Your task to perform on an android device: turn on javascript in the chrome app Image 0: 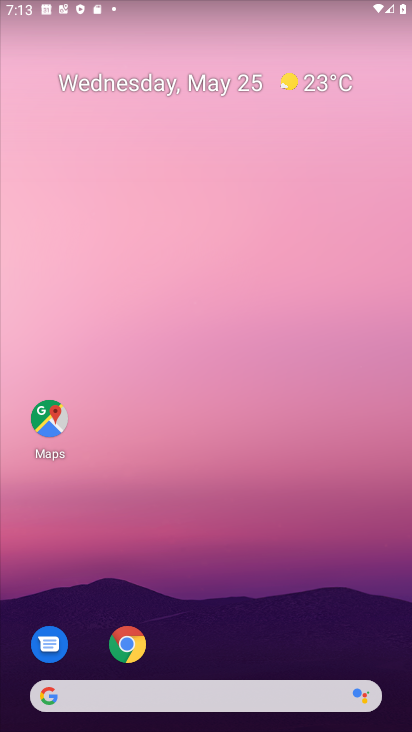
Step 0: press home button
Your task to perform on an android device: turn on javascript in the chrome app Image 1: 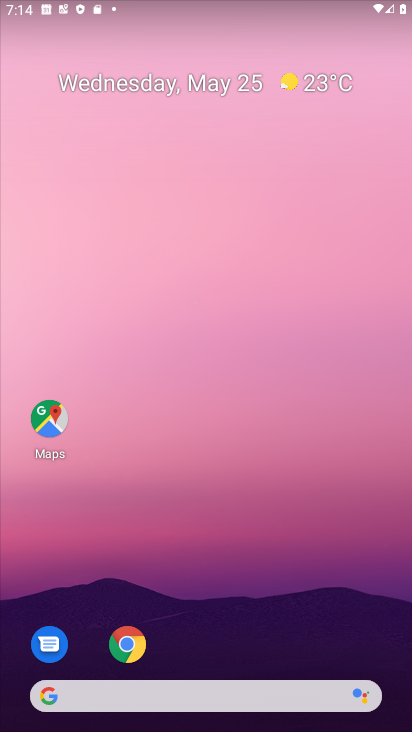
Step 1: drag from (298, 700) to (303, 223)
Your task to perform on an android device: turn on javascript in the chrome app Image 2: 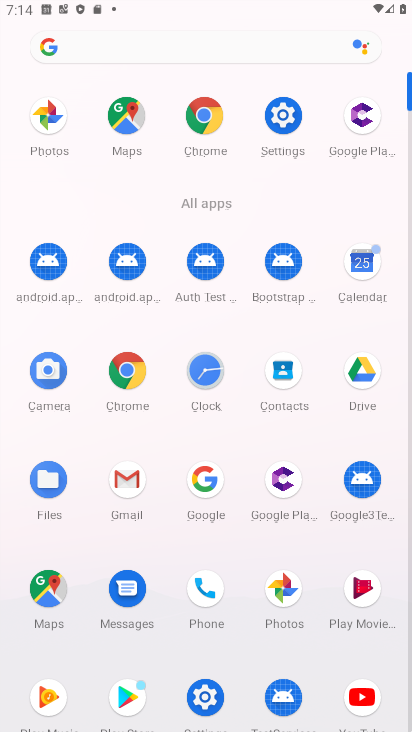
Step 2: click (135, 377)
Your task to perform on an android device: turn on javascript in the chrome app Image 3: 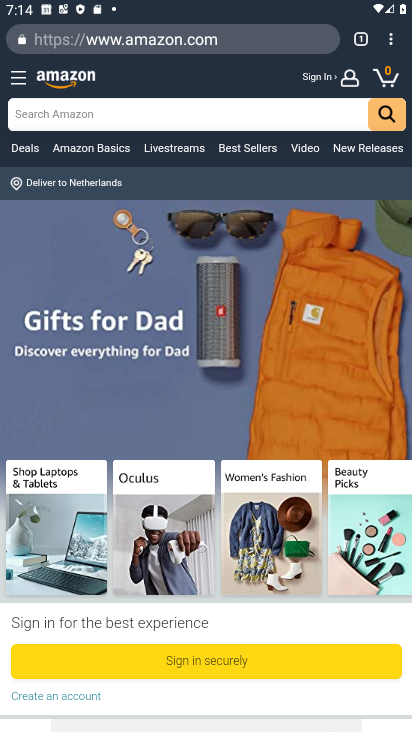
Step 3: click (390, 44)
Your task to perform on an android device: turn on javascript in the chrome app Image 4: 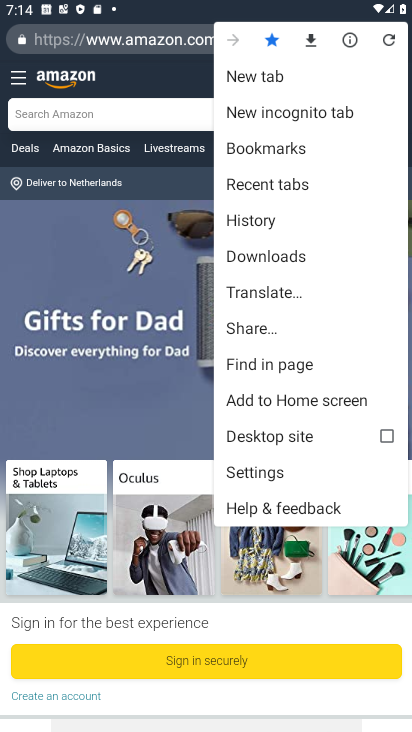
Step 4: click (282, 465)
Your task to perform on an android device: turn on javascript in the chrome app Image 5: 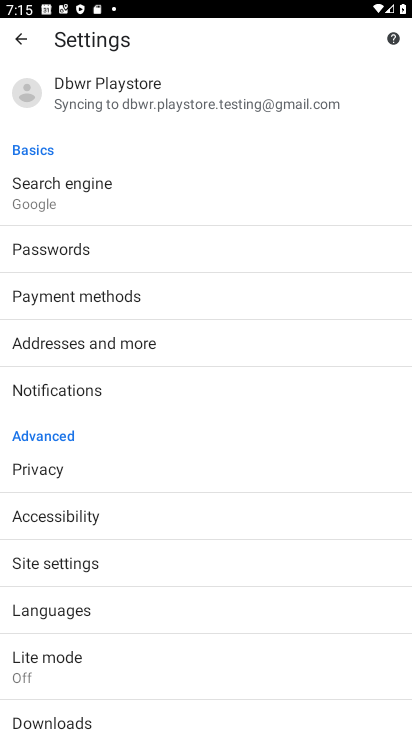
Step 5: drag from (174, 539) to (237, 431)
Your task to perform on an android device: turn on javascript in the chrome app Image 6: 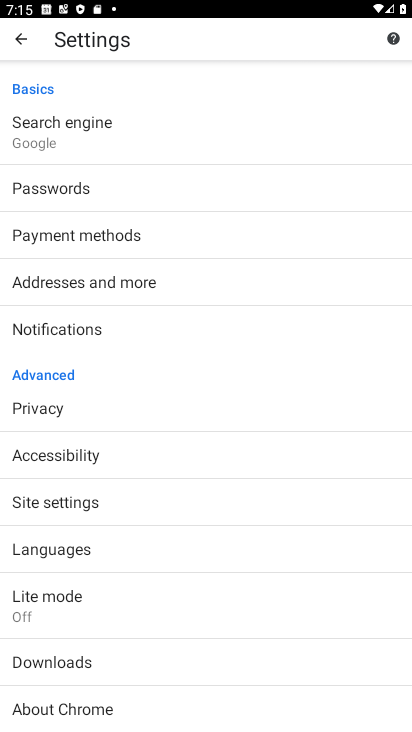
Step 6: click (89, 506)
Your task to perform on an android device: turn on javascript in the chrome app Image 7: 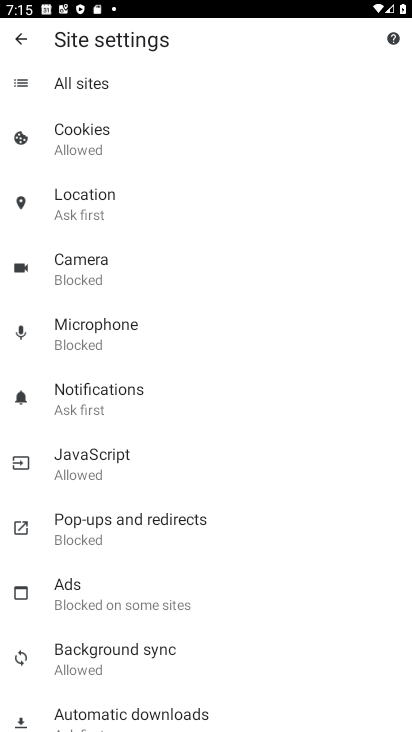
Step 7: click (117, 452)
Your task to perform on an android device: turn on javascript in the chrome app Image 8: 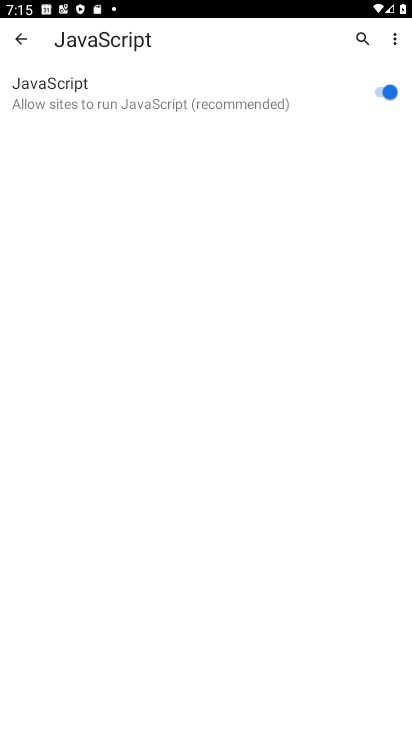
Step 8: click (385, 91)
Your task to perform on an android device: turn on javascript in the chrome app Image 9: 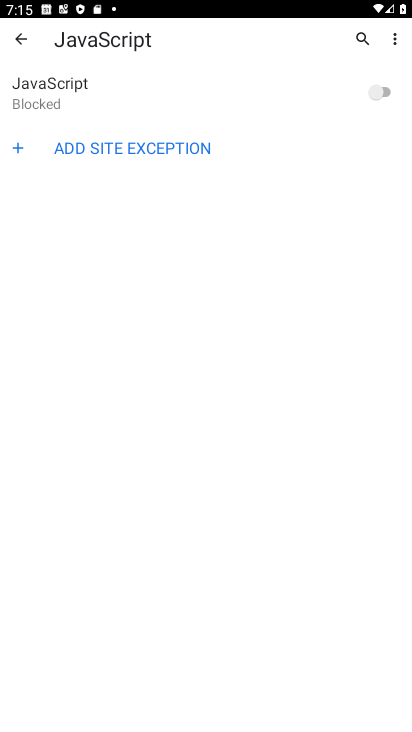
Step 9: click (377, 96)
Your task to perform on an android device: turn on javascript in the chrome app Image 10: 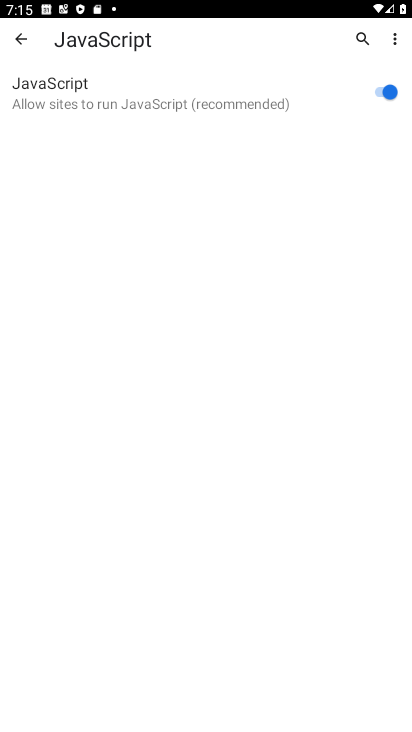
Step 10: task complete